Your task to perform on an android device: search for starred emails in the gmail app Image 0: 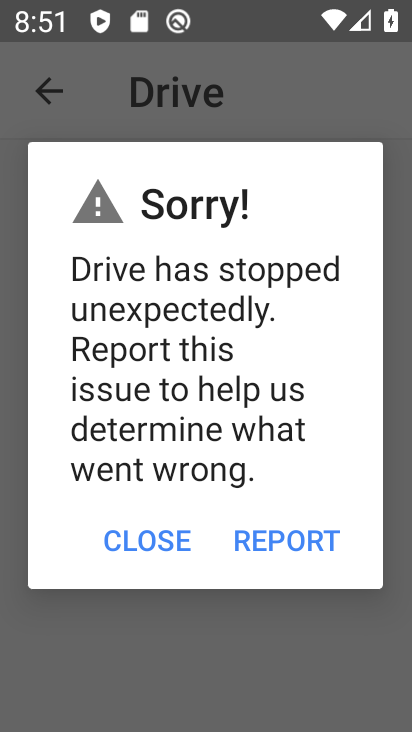
Step 0: press home button
Your task to perform on an android device: search for starred emails in the gmail app Image 1: 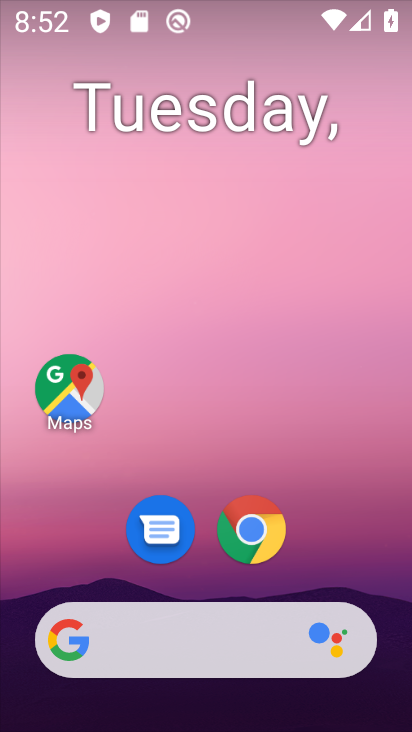
Step 1: drag from (328, 552) to (314, 45)
Your task to perform on an android device: search for starred emails in the gmail app Image 2: 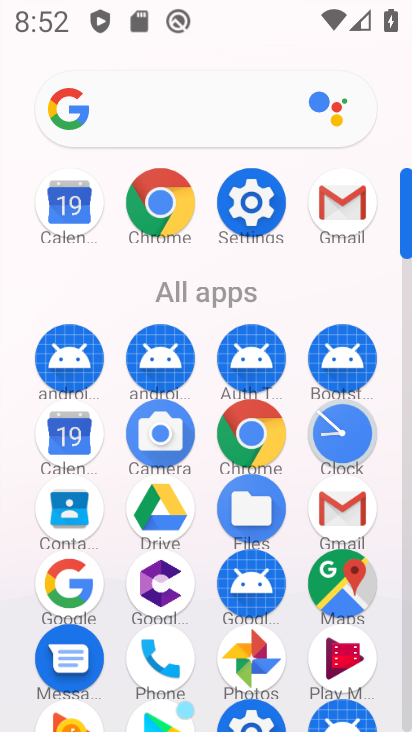
Step 2: click (408, 694)
Your task to perform on an android device: search for starred emails in the gmail app Image 3: 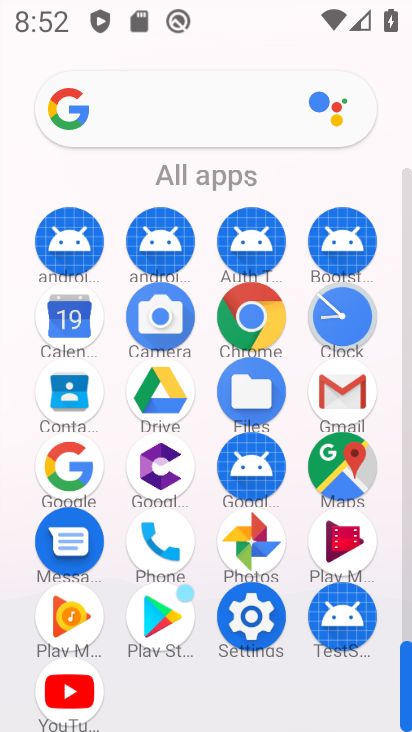
Step 3: click (340, 388)
Your task to perform on an android device: search for starred emails in the gmail app Image 4: 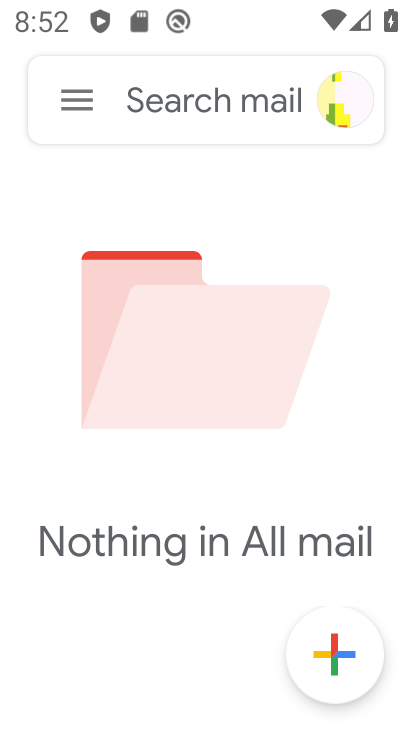
Step 4: click (76, 92)
Your task to perform on an android device: search for starred emails in the gmail app Image 5: 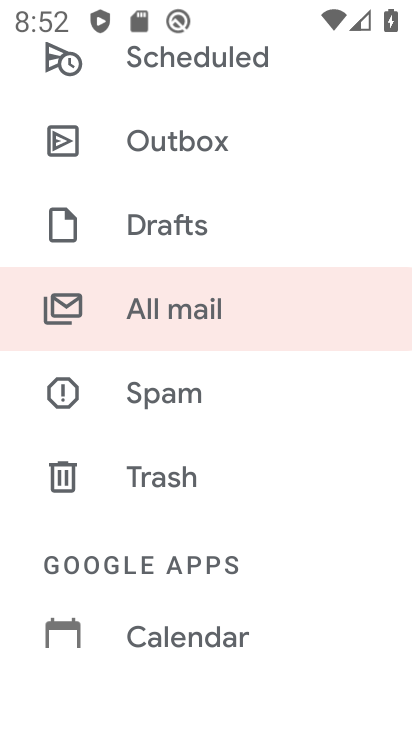
Step 5: drag from (304, 313) to (267, 534)
Your task to perform on an android device: search for starred emails in the gmail app Image 6: 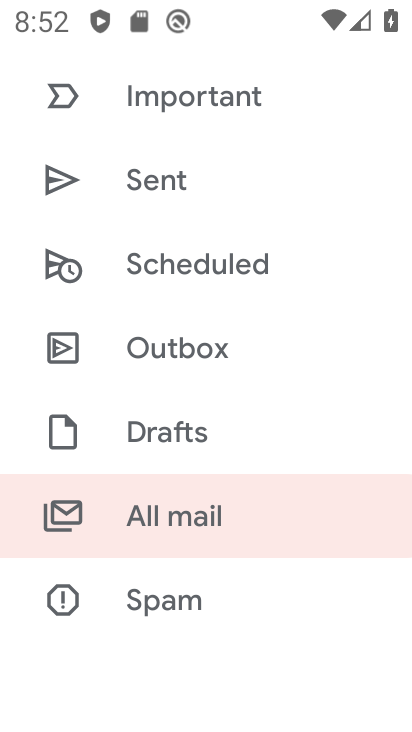
Step 6: drag from (280, 358) to (266, 544)
Your task to perform on an android device: search for starred emails in the gmail app Image 7: 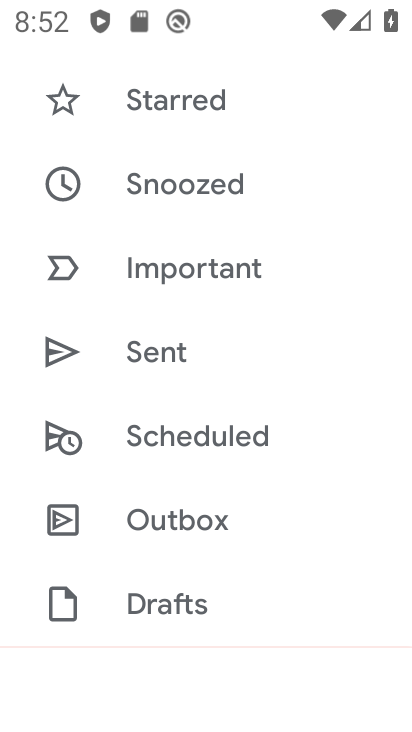
Step 7: drag from (288, 294) to (290, 472)
Your task to perform on an android device: search for starred emails in the gmail app Image 8: 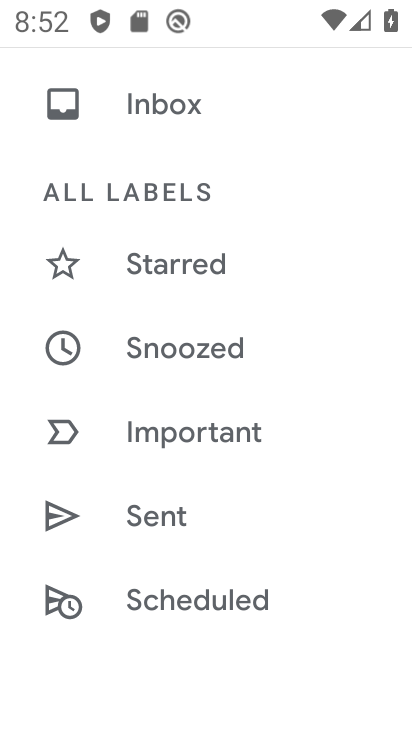
Step 8: click (159, 252)
Your task to perform on an android device: search for starred emails in the gmail app Image 9: 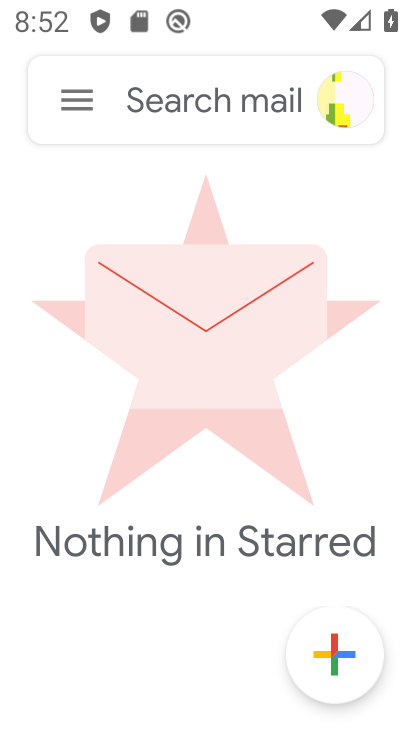
Step 9: task complete